Your task to perform on an android device: Open Wikipedia Image 0: 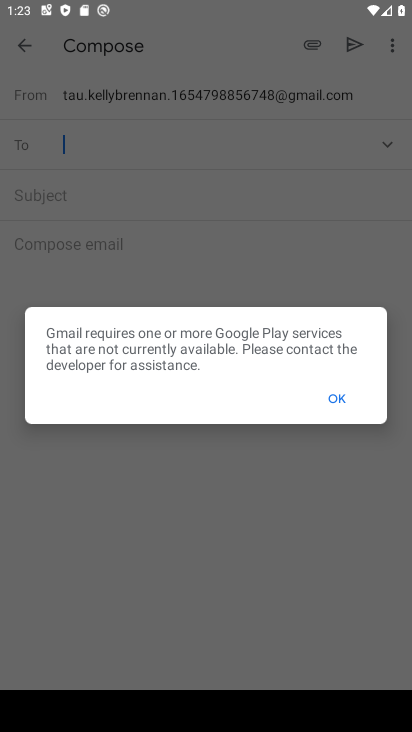
Step 0: press home button
Your task to perform on an android device: Open Wikipedia Image 1: 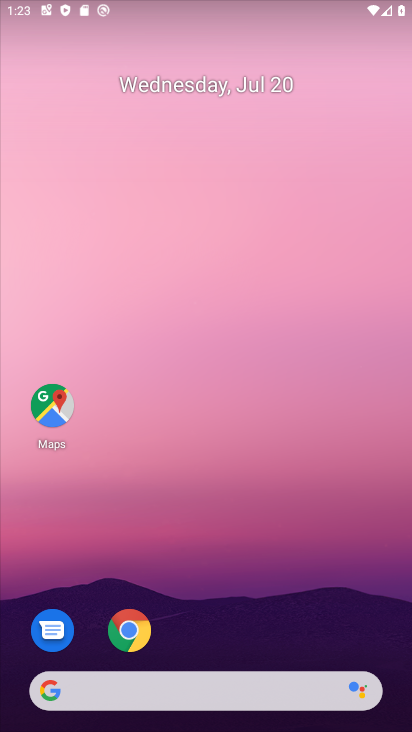
Step 1: drag from (343, 568) to (312, 45)
Your task to perform on an android device: Open Wikipedia Image 2: 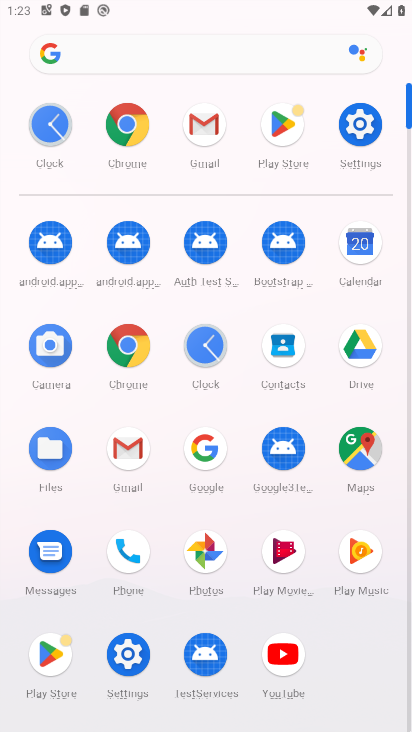
Step 2: click (123, 127)
Your task to perform on an android device: Open Wikipedia Image 3: 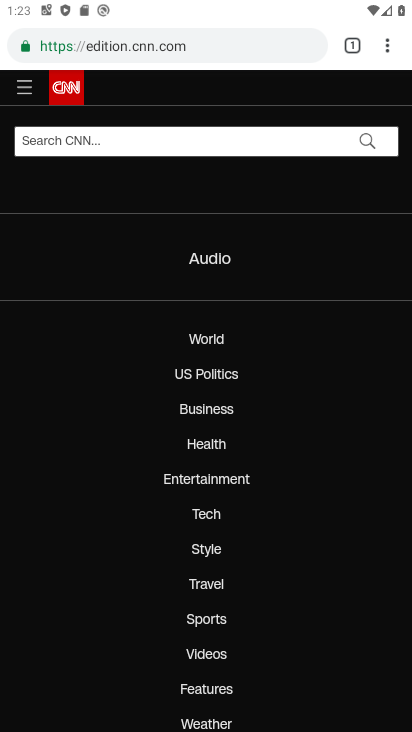
Step 3: click (180, 49)
Your task to perform on an android device: Open Wikipedia Image 4: 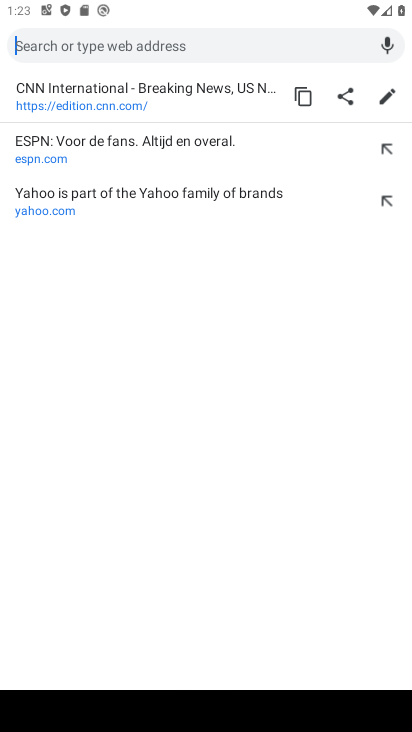
Step 4: type "wikipedia"
Your task to perform on an android device: Open Wikipedia Image 5: 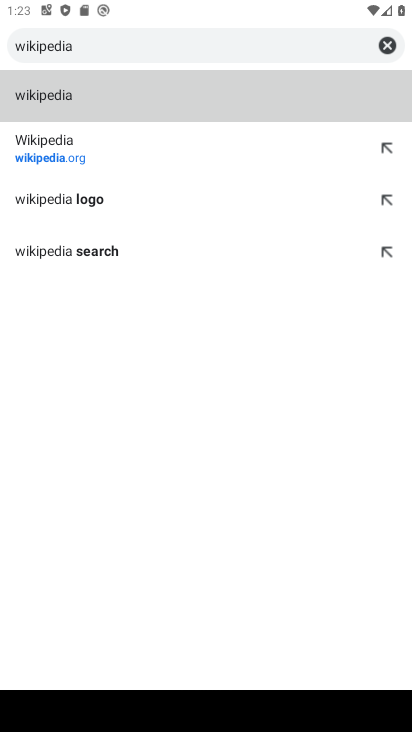
Step 5: click (50, 155)
Your task to perform on an android device: Open Wikipedia Image 6: 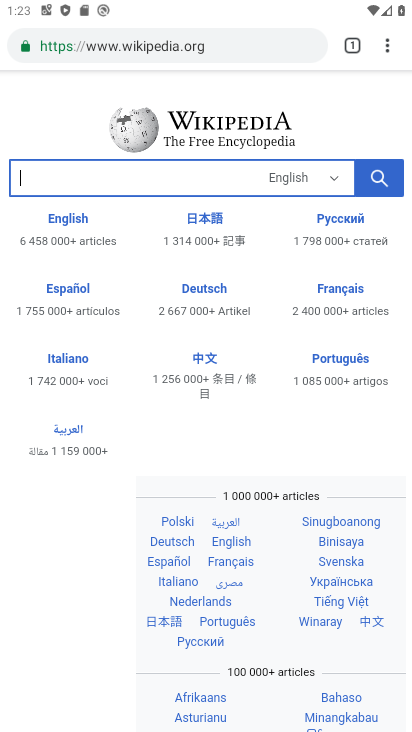
Step 6: click (54, 152)
Your task to perform on an android device: Open Wikipedia Image 7: 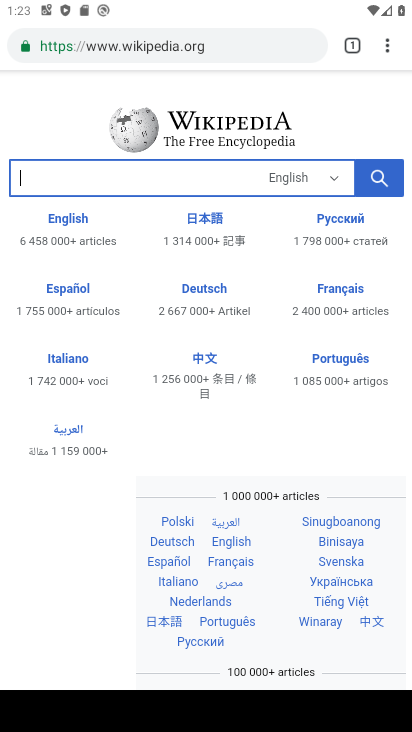
Step 7: task complete